Your task to perform on an android device: Go to Yahoo.com Image 0: 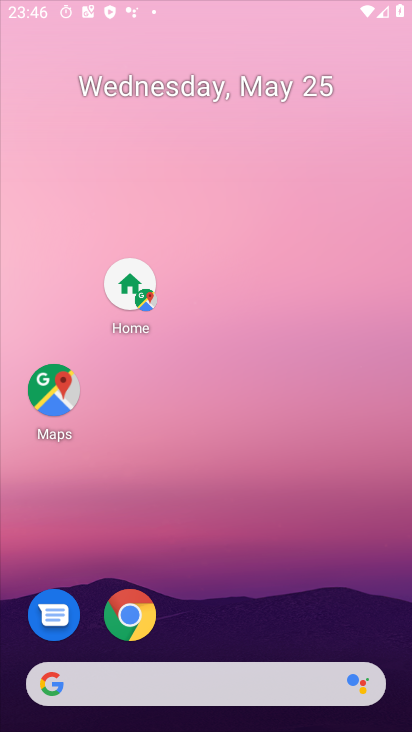
Step 0: press home button
Your task to perform on an android device: Go to Yahoo.com Image 1: 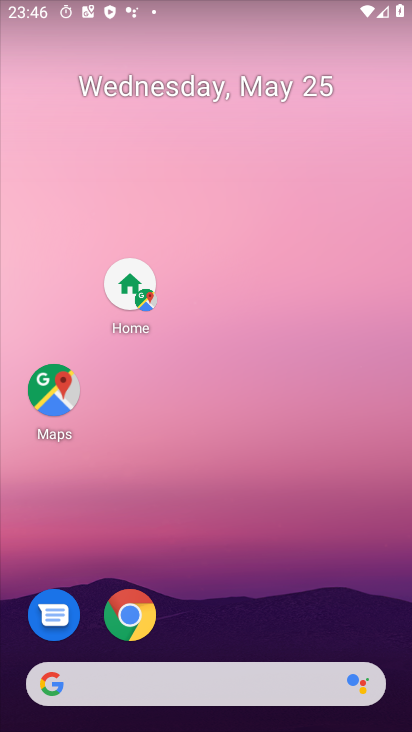
Step 1: click (39, 688)
Your task to perform on an android device: Go to Yahoo.com Image 2: 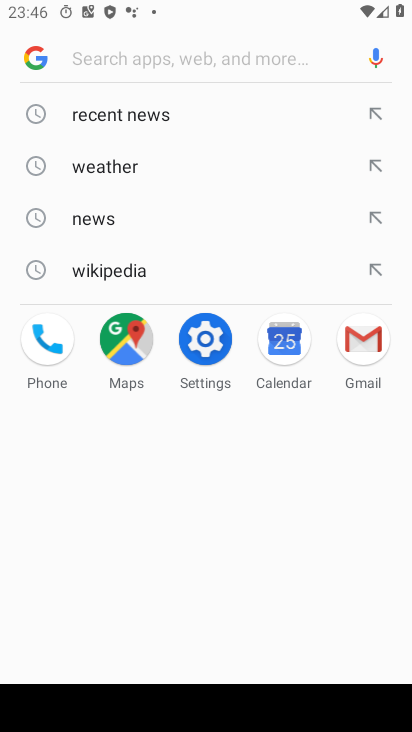
Step 2: type "Yahoo.com"
Your task to perform on an android device: Go to Yahoo.com Image 3: 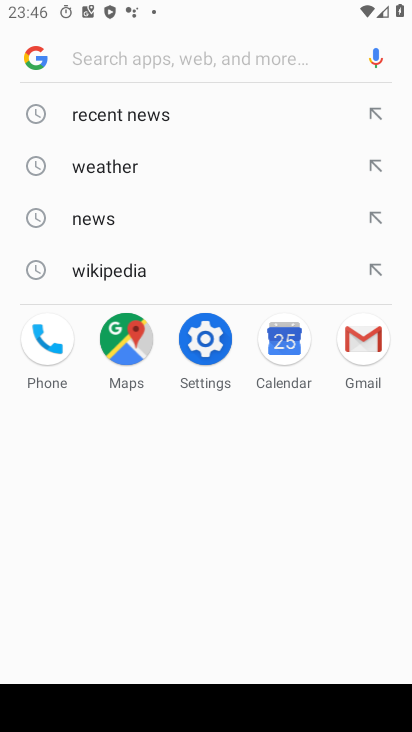
Step 3: click (193, 37)
Your task to perform on an android device: Go to Yahoo.com Image 4: 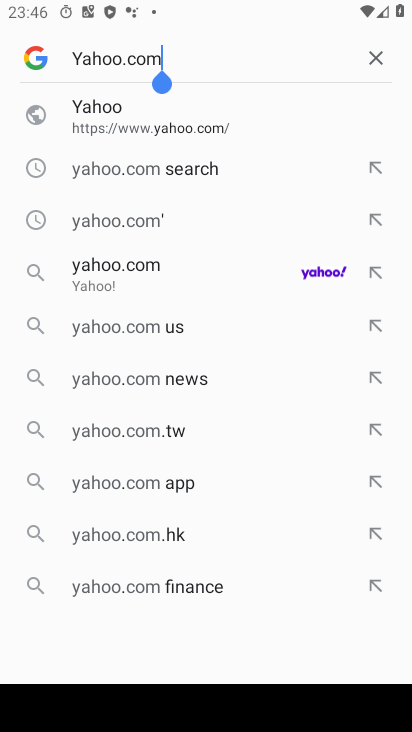
Step 4: click (123, 124)
Your task to perform on an android device: Go to Yahoo.com Image 5: 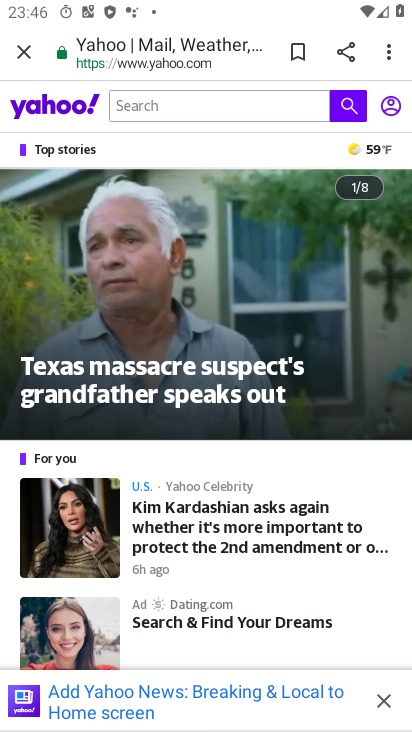
Step 5: task complete